Your task to perform on an android device: Go to CNN.com Image 0: 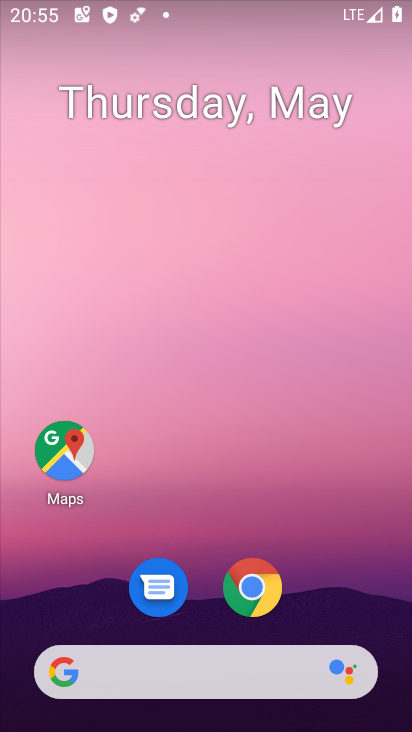
Step 0: click (257, 578)
Your task to perform on an android device: Go to CNN.com Image 1: 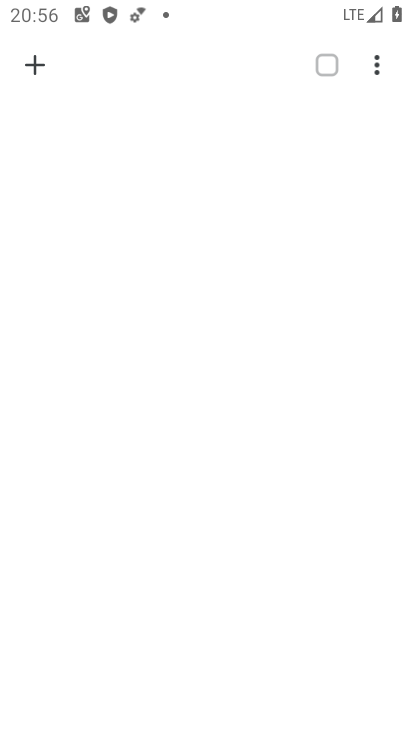
Step 1: click (36, 63)
Your task to perform on an android device: Go to CNN.com Image 2: 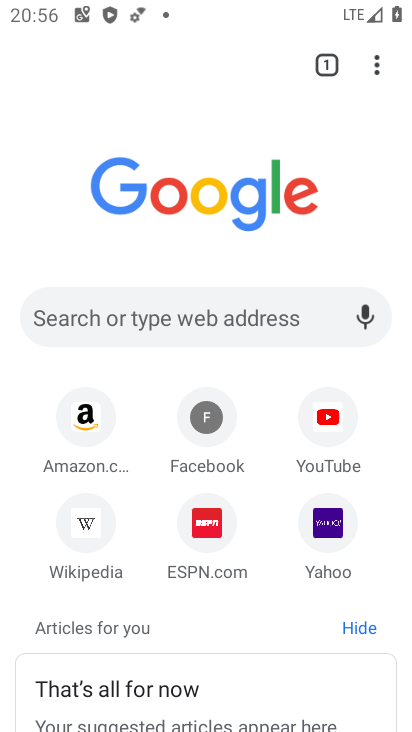
Step 2: click (210, 300)
Your task to perform on an android device: Go to CNN.com Image 3: 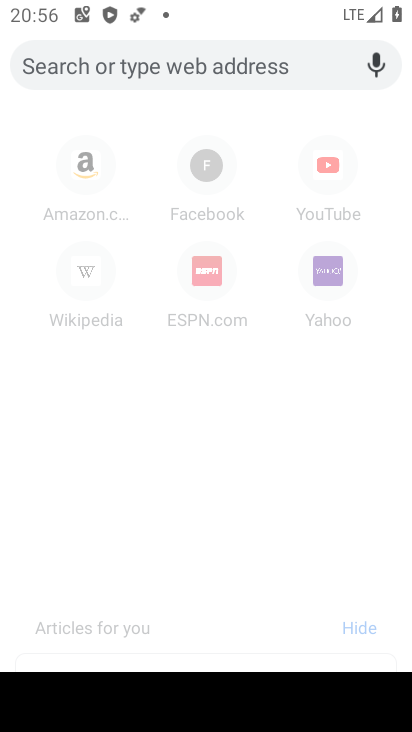
Step 3: type "cnn.com"
Your task to perform on an android device: Go to CNN.com Image 4: 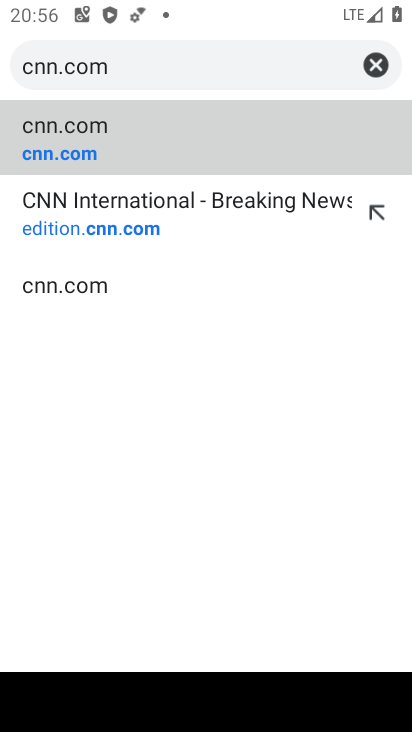
Step 4: click (108, 140)
Your task to perform on an android device: Go to CNN.com Image 5: 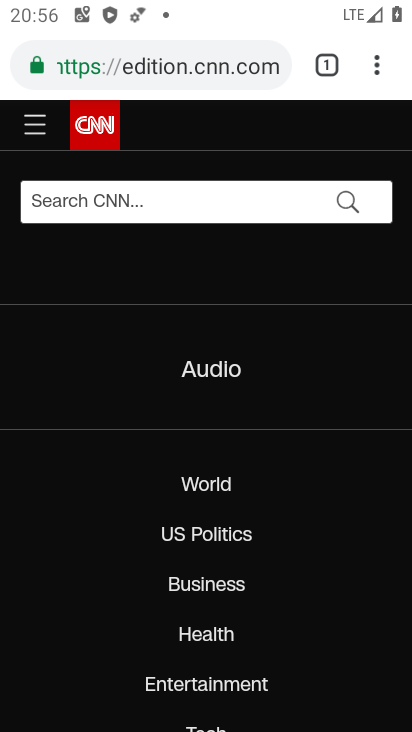
Step 5: task complete